Your task to perform on an android device: toggle location history Image 0: 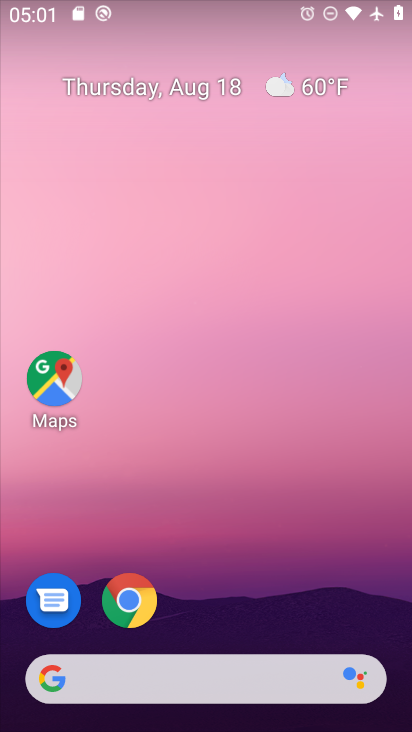
Step 0: drag from (217, 633) to (251, 100)
Your task to perform on an android device: toggle location history Image 1: 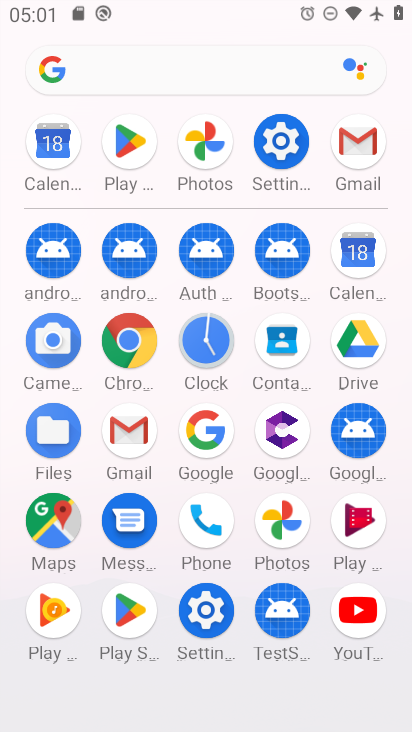
Step 1: click (269, 150)
Your task to perform on an android device: toggle location history Image 2: 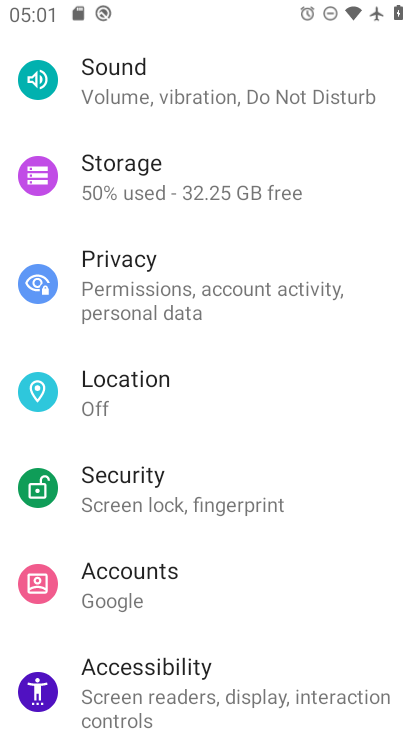
Step 2: click (124, 392)
Your task to perform on an android device: toggle location history Image 3: 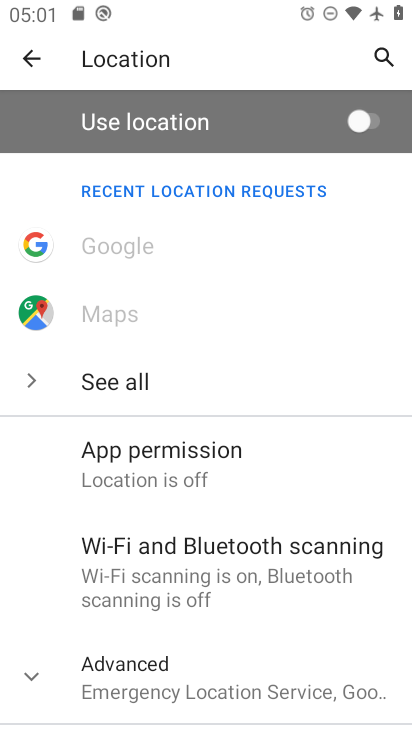
Step 3: click (119, 693)
Your task to perform on an android device: toggle location history Image 4: 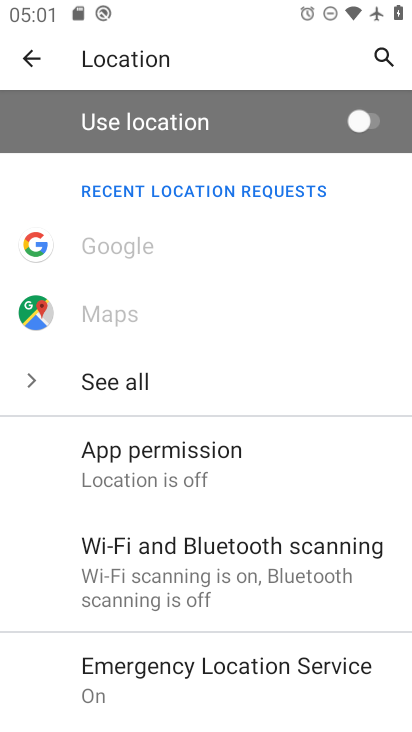
Step 4: drag from (262, 690) to (311, 93)
Your task to perform on an android device: toggle location history Image 5: 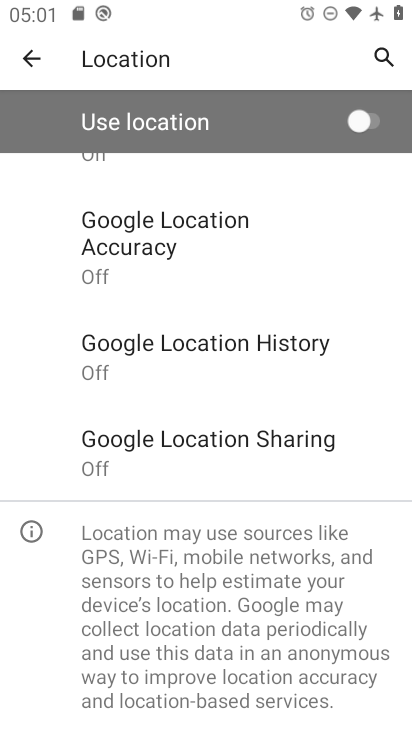
Step 5: click (206, 352)
Your task to perform on an android device: toggle location history Image 6: 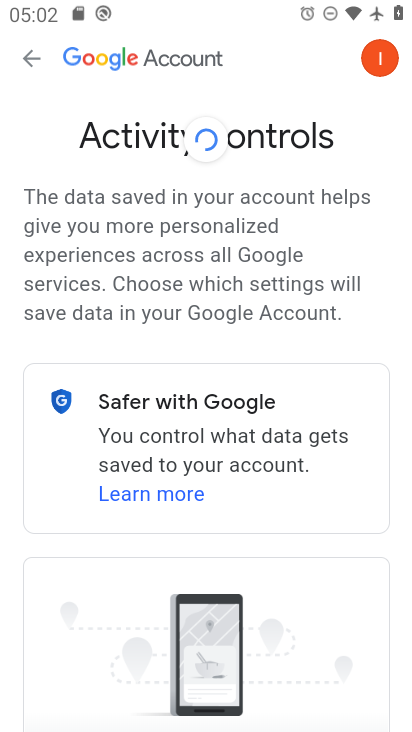
Step 6: drag from (360, 637) to (362, 59)
Your task to perform on an android device: toggle location history Image 7: 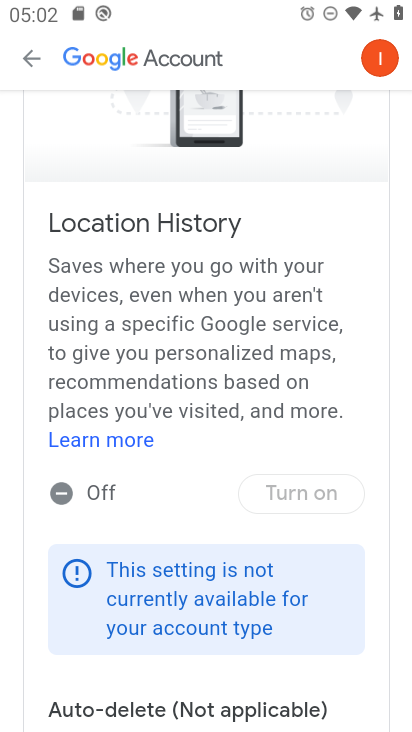
Step 7: click (302, 489)
Your task to perform on an android device: toggle location history Image 8: 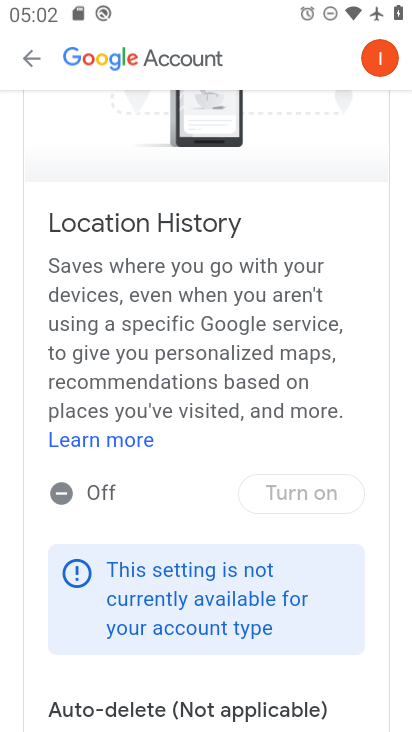
Step 8: task complete